Your task to perform on an android device: When is my next meeting? Image 0: 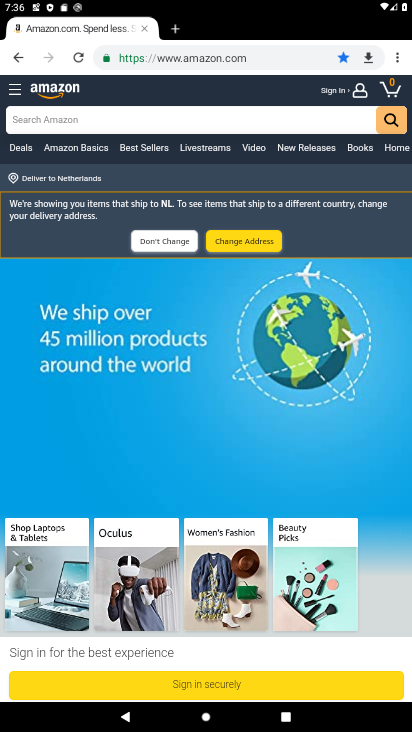
Step 0: press home button
Your task to perform on an android device: When is my next meeting? Image 1: 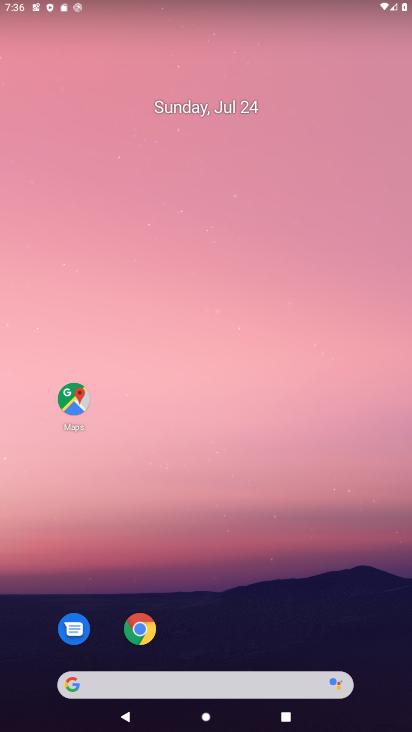
Step 1: drag from (382, 643) to (375, 213)
Your task to perform on an android device: When is my next meeting? Image 2: 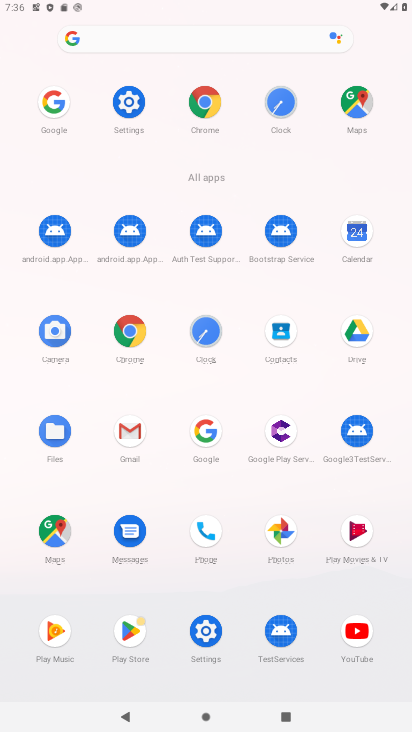
Step 2: click (354, 233)
Your task to perform on an android device: When is my next meeting? Image 3: 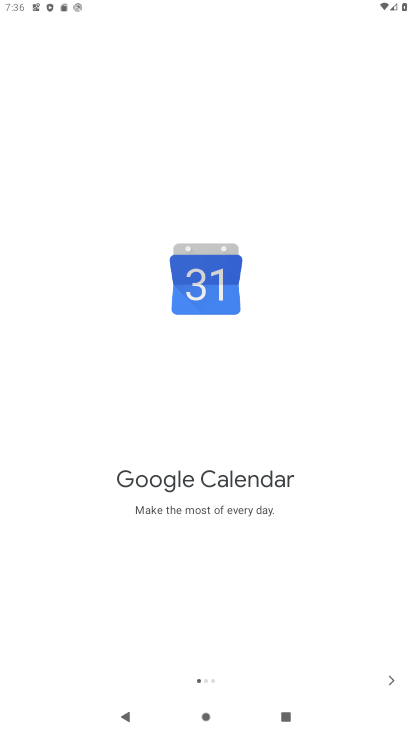
Step 3: click (386, 673)
Your task to perform on an android device: When is my next meeting? Image 4: 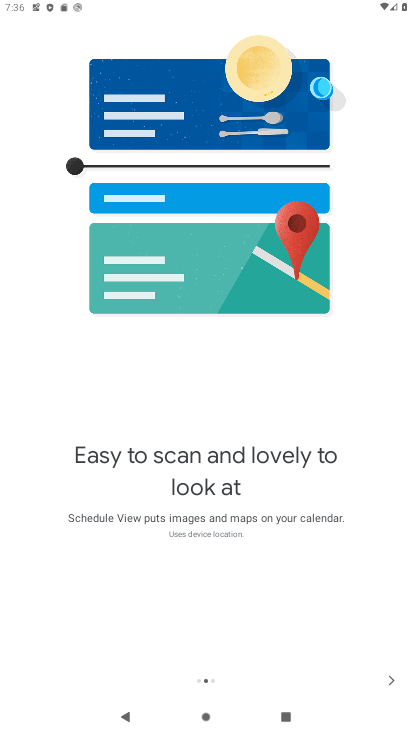
Step 4: click (390, 678)
Your task to perform on an android device: When is my next meeting? Image 5: 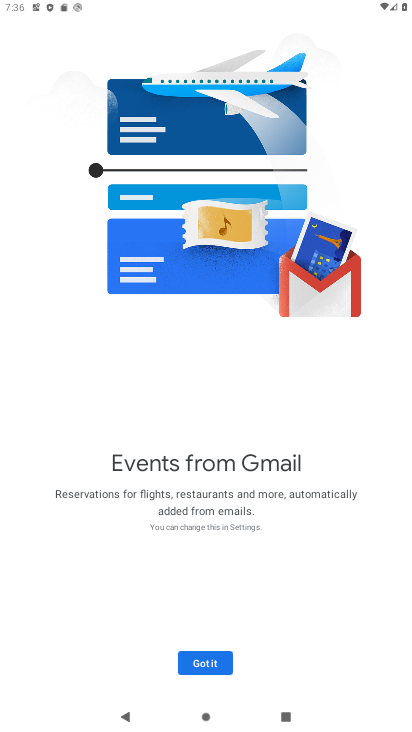
Step 5: click (217, 663)
Your task to perform on an android device: When is my next meeting? Image 6: 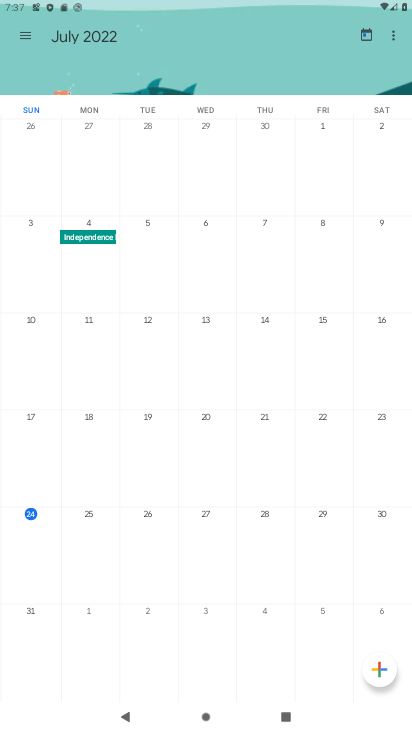
Step 6: click (27, 29)
Your task to perform on an android device: When is my next meeting? Image 7: 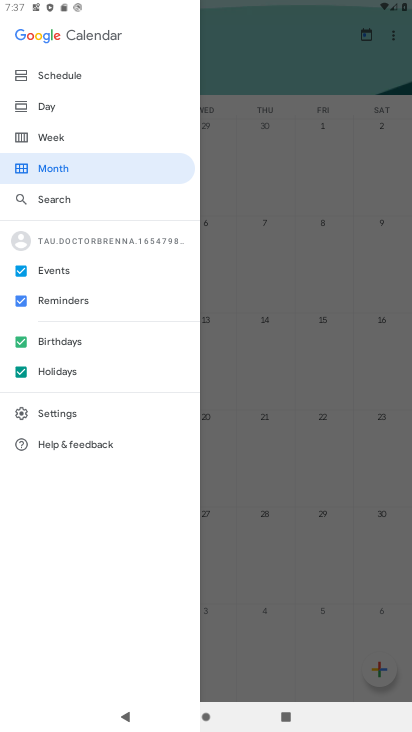
Step 7: click (88, 85)
Your task to perform on an android device: When is my next meeting? Image 8: 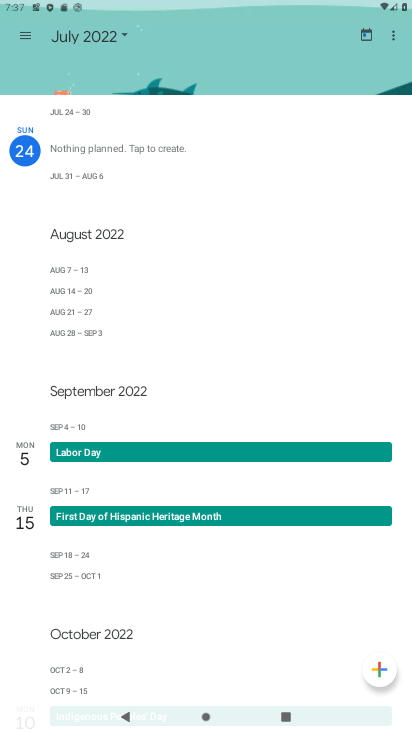
Step 8: task complete